Your task to perform on an android device: turn off picture-in-picture Image 0: 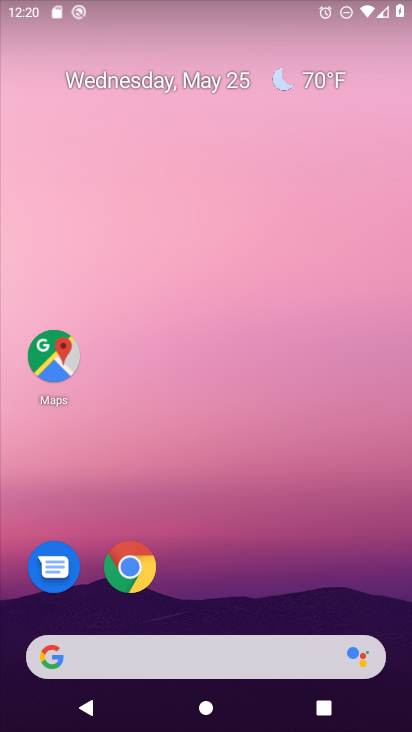
Step 0: click (130, 559)
Your task to perform on an android device: turn off picture-in-picture Image 1: 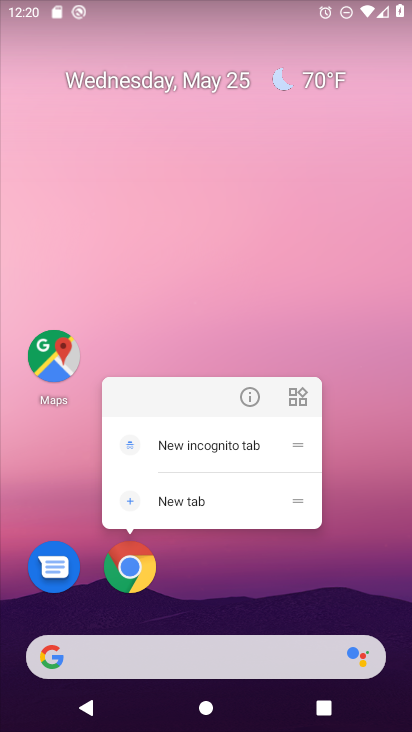
Step 1: click (246, 393)
Your task to perform on an android device: turn off picture-in-picture Image 2: 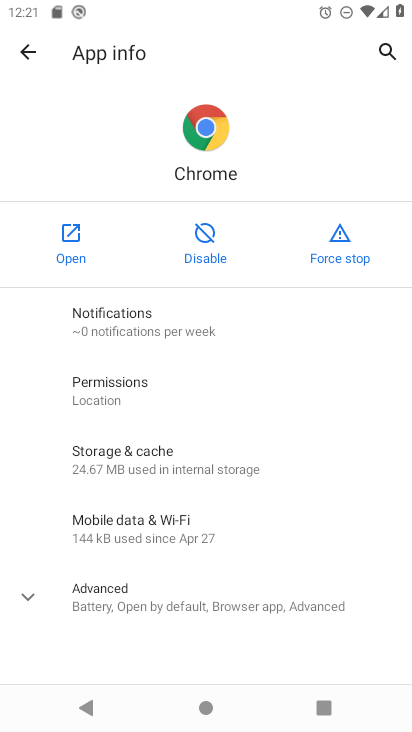
Step 2: drag from (312, 648) to (296, 212)
Your task to perform on an android device: turn off picture-in-picture Image 3: 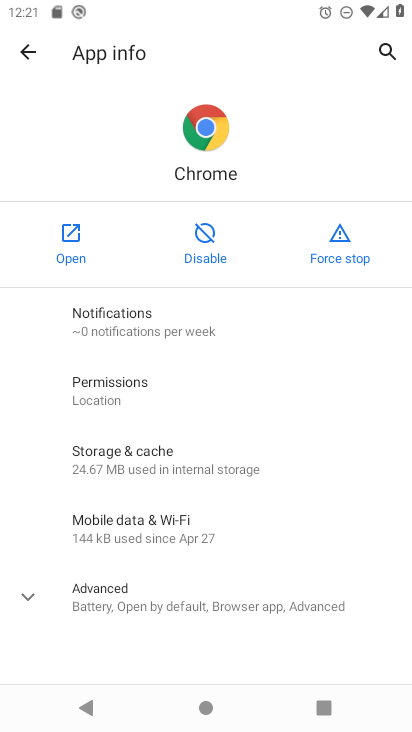
Step 3: click (27, 597)
Your task to perform on an android device: turn off picture-in-picture Image 4: 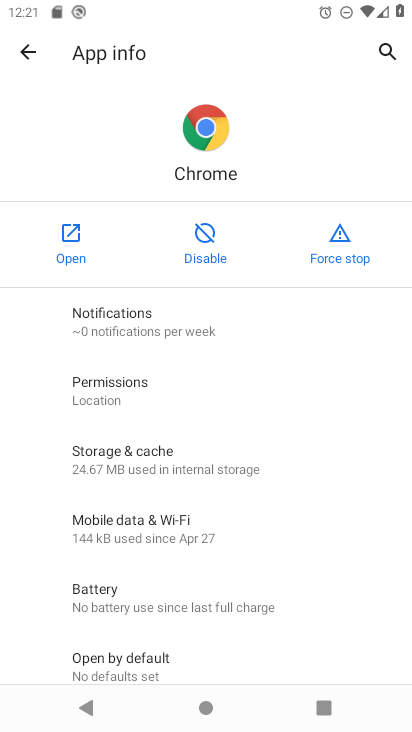
Step 4: drag from (323, 656) to (323, 121)
Your task to perform on an android device: turn off picture-in-picture Image 5: 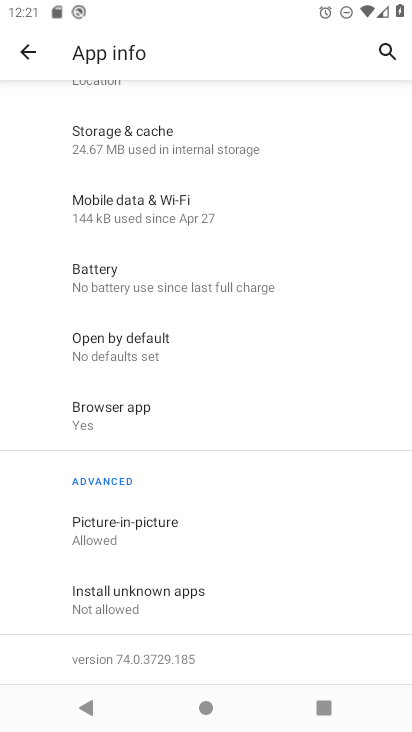
Step 5: click (91, 521)
Your task to perform on an android device: turn off picture-in-picture Image 6: 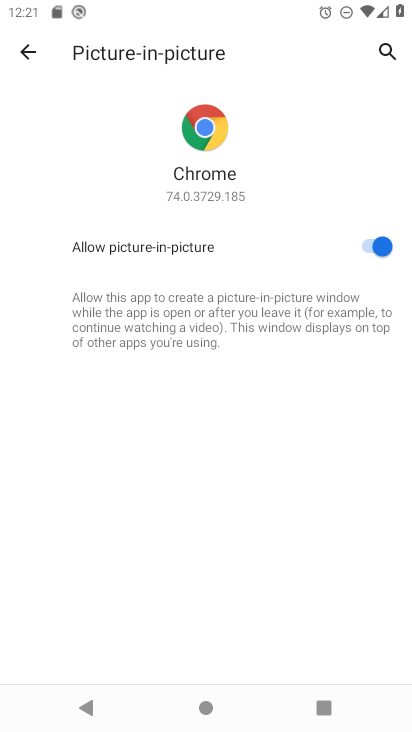
Step 6: click (364, 245)
Your task to perform on an android device: turn off picture-in-picture Image 7: 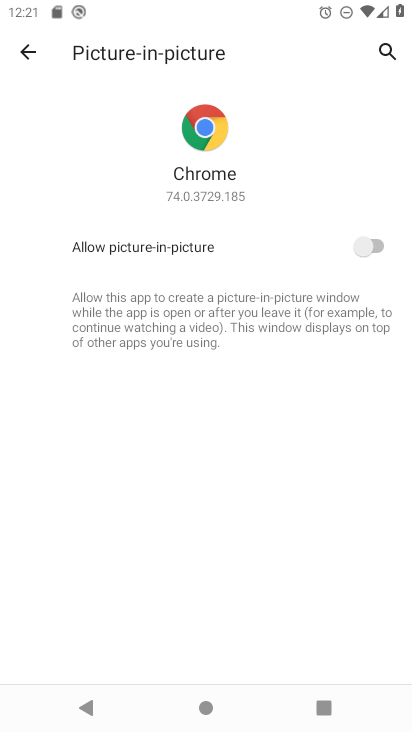
Step 7: task complete